Your task to perform on an android device: turn pop-ups off in chrome Image 0: 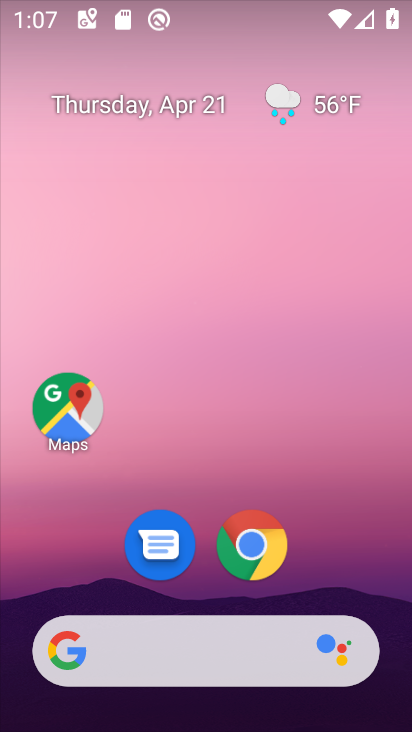
Step 0: drag from (206, 631) to (295, 86)
Your task to perform on an android device: turn pop-ups off in chrome Image 1: 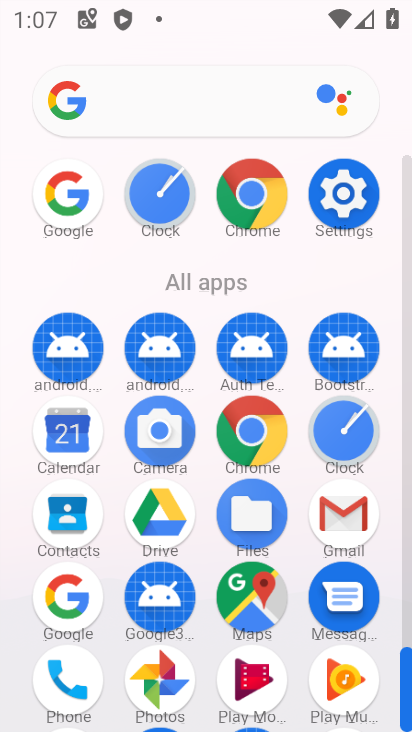
Step 1: click (247, 203)
Your task to perform on an android device: turn pop-ups off in chrome Image 2: 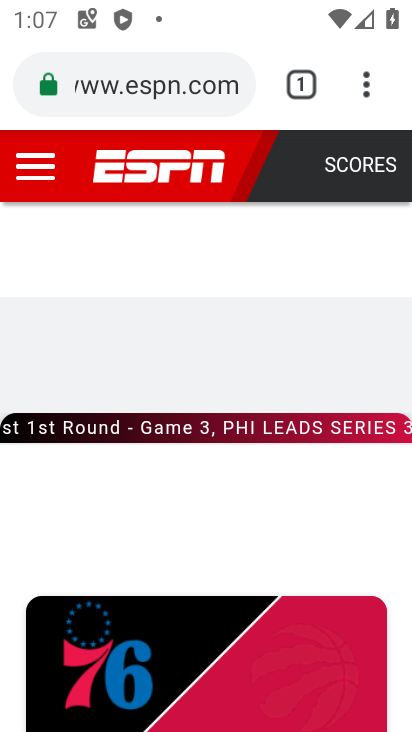
Step 2: click (360, 97)
Your task to perform on an android device: turn pop-ups off in chrome Image 3: 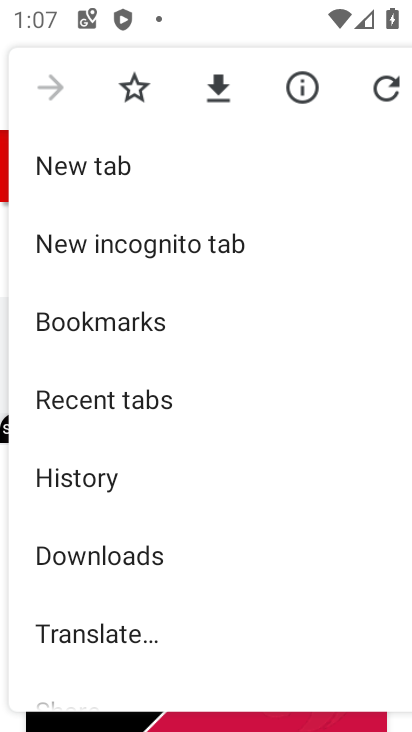
Step 3: drag from (192, 562) to (371, 114)
Your task to perform on an android device: turn pop-ups off in chrome Image 4: 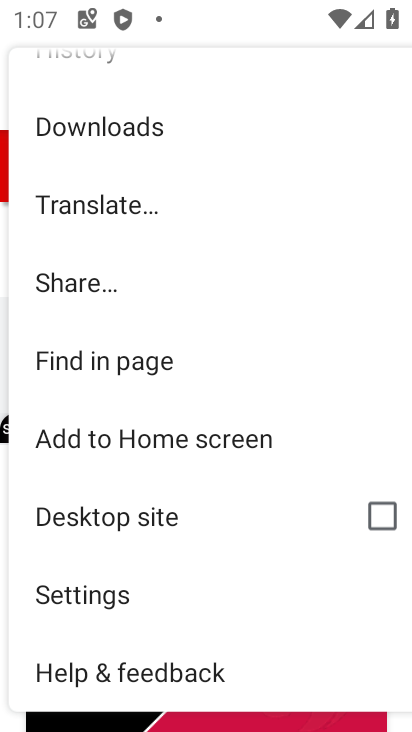
Step 4: click (98, 594)
Your task to perform on an android device: turn pop-ups off in chrome Image 5: 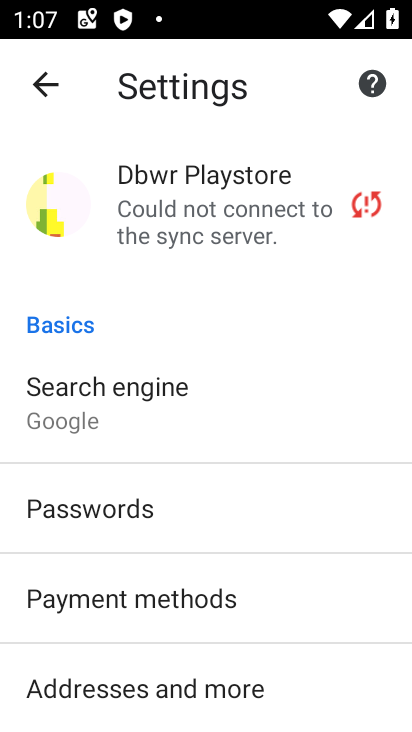
Step 5: drag from (265, 640) to (410, 146)
Your task to perform on an android device: turn pop-ups off in chrome Image 6: 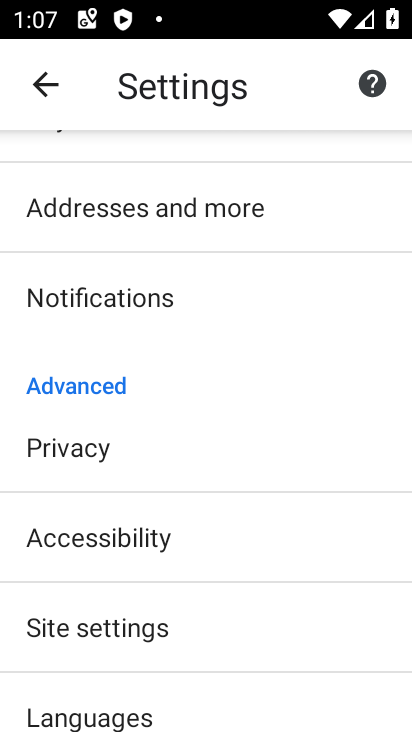
Step 6: click (117, 627)
Your task to perform on an android device: turn pop-ups off in chrome Image 7: 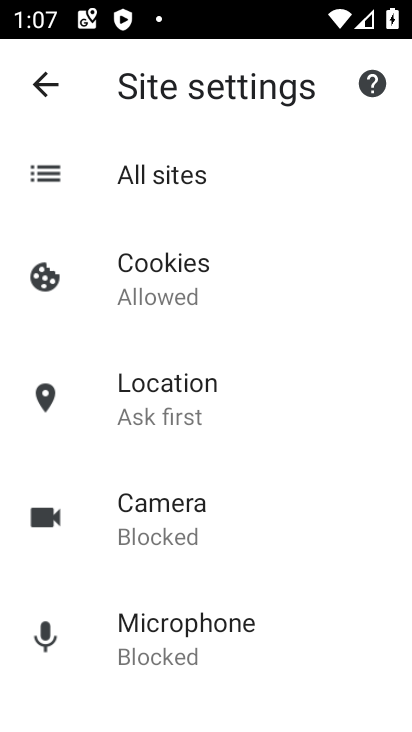
Step 7: drag from (215, 607) to (339, 168)
Your task to perform on an android device: turn pop-ups off in chrome Image 8: 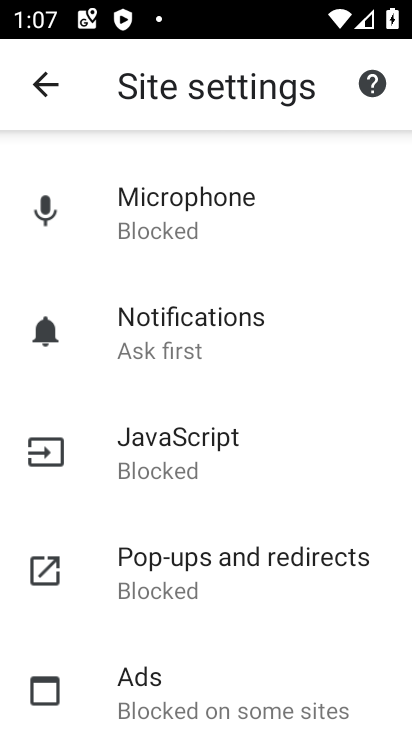
Step 8: click (205, 562)
Your task to perform on an android device: turn pop-ups off in chrome Image 9: 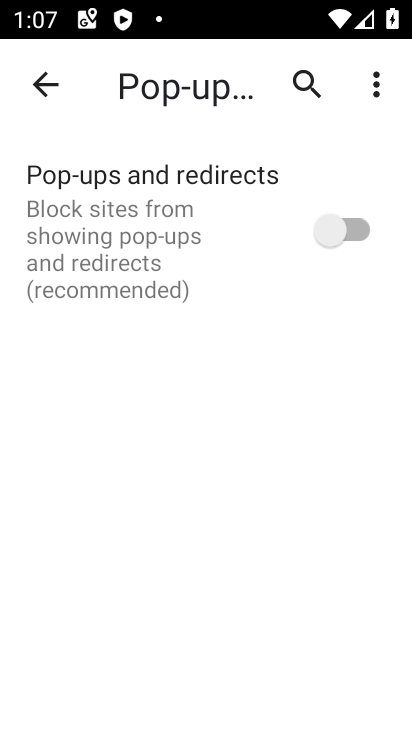
Step 9: task complete